Your task to perform on an android device: turn on location history Image 0: 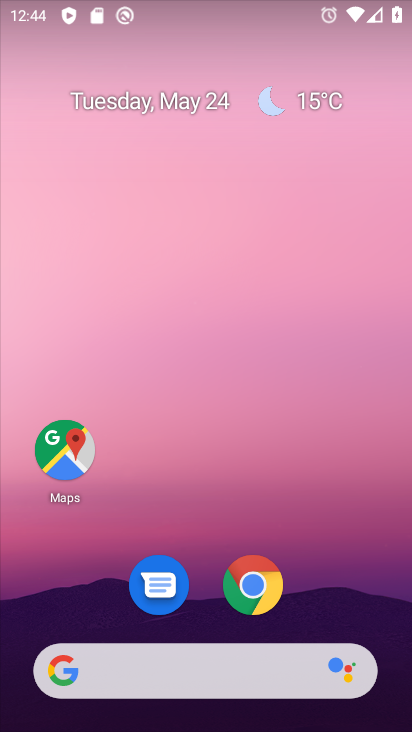
Step 0: drag from (216, 480) to (250, 104)
Your task to perform on an android device: turn on location history Image 1: 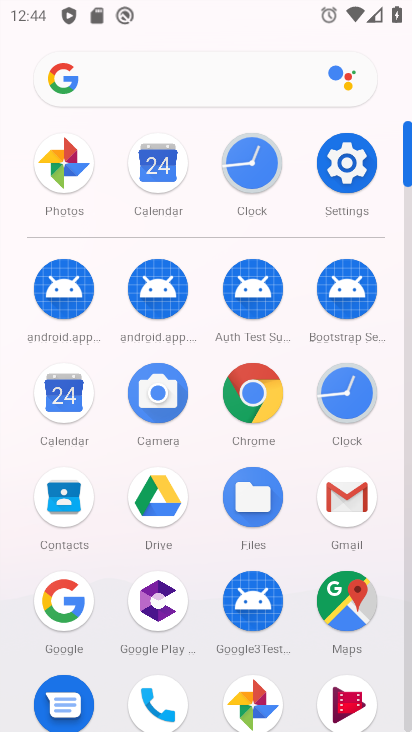
Step 1: click (351, 157)
Your task to perform on an android device: turn on location history Image 2: 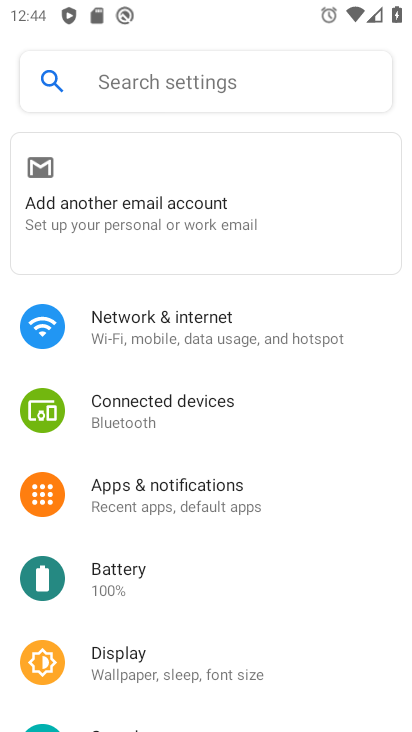
Step 2: drag from (243, 585) to (226, 149)
Your task to perform on an android device: turn on location history Image 3: 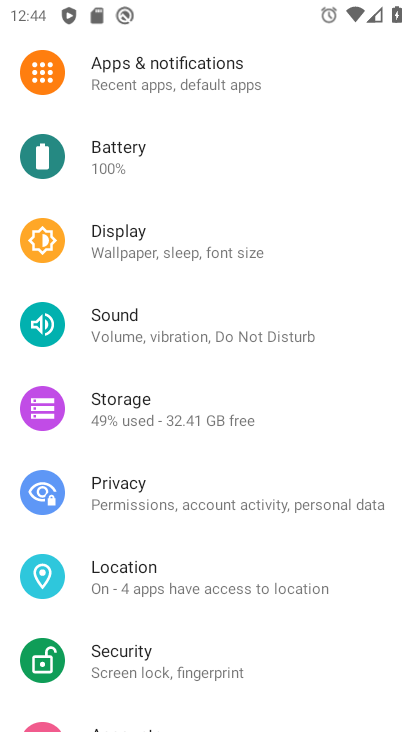
Step 3: click (223, 581)
Your task to perform on an android device: turn on location history Image 4: 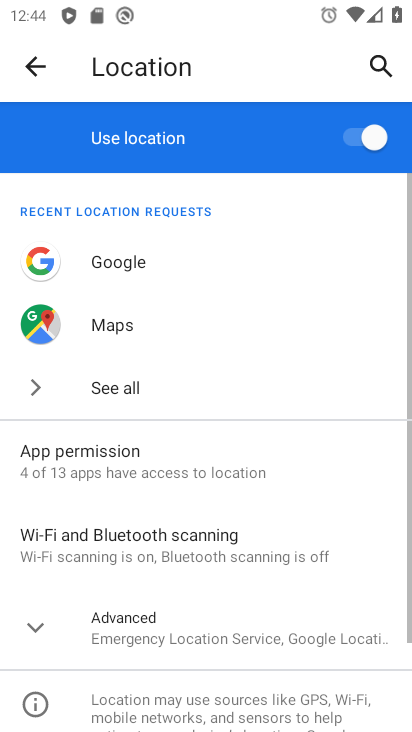
Step 4: drag from (240, 506) to (218, 283)
Your task to perform on an android device: turn on location history Image 5: 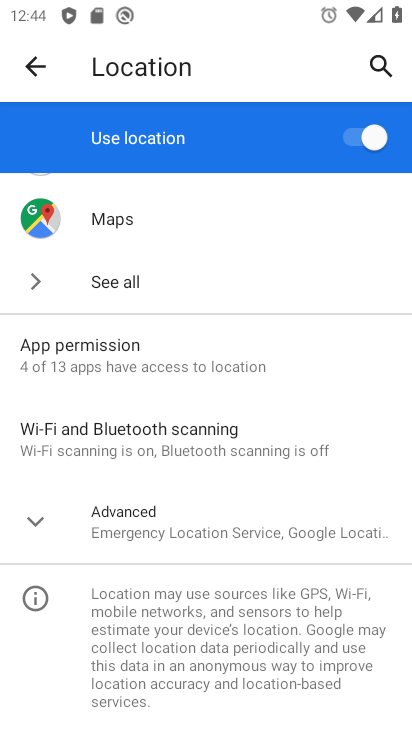
Step 5: click (30, 522)
Your task to perform on an android device: turn on location history Image 6: 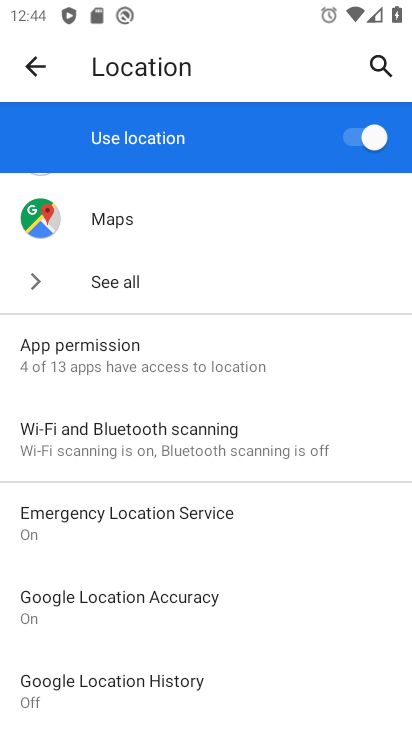
Step 6: click (196, 687)
Your task to perform on an android device: turn on location history Image 7: 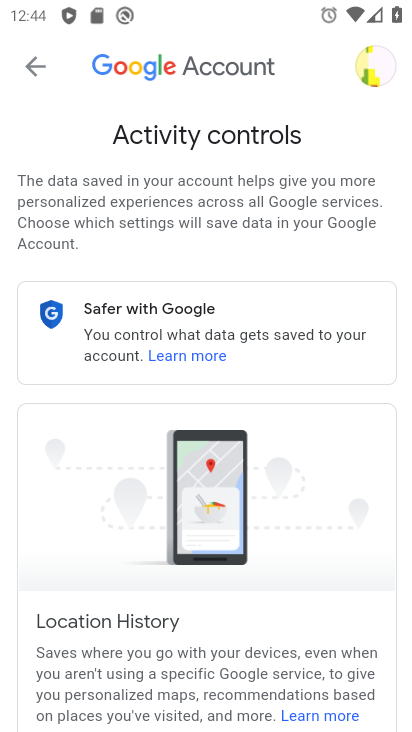
Step 7: task complete